Your task to perform on an android device: find photos in the google photos app Image 0: 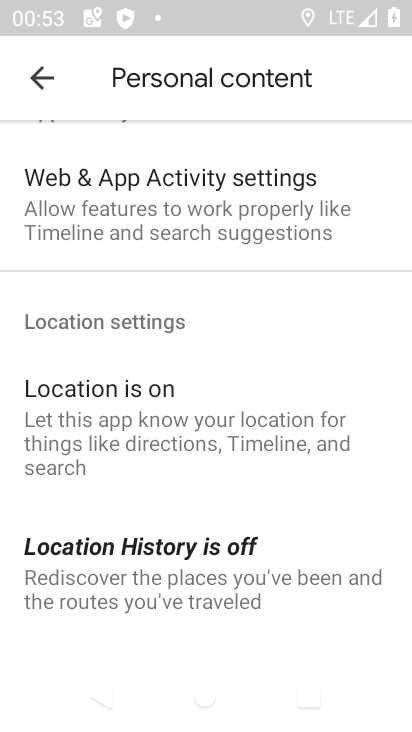
Step 0: press home button
Your task to perform on an android device: find photos in the google photos app Image 1: 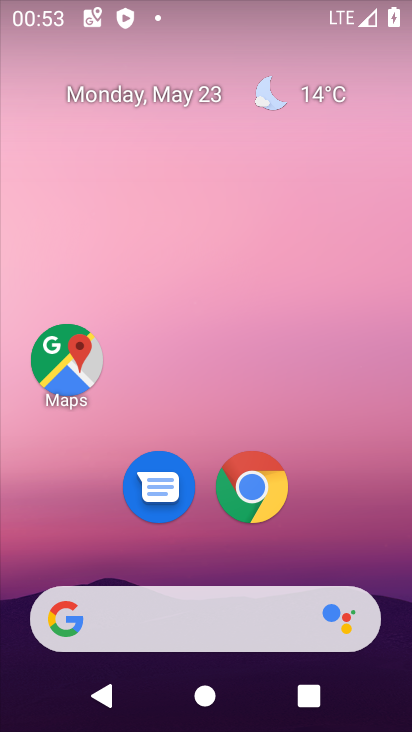
Step 1: drag from (388, 578) to (297, 15)
Your task to perform on an android device: find photos in the google photos app Image 2: 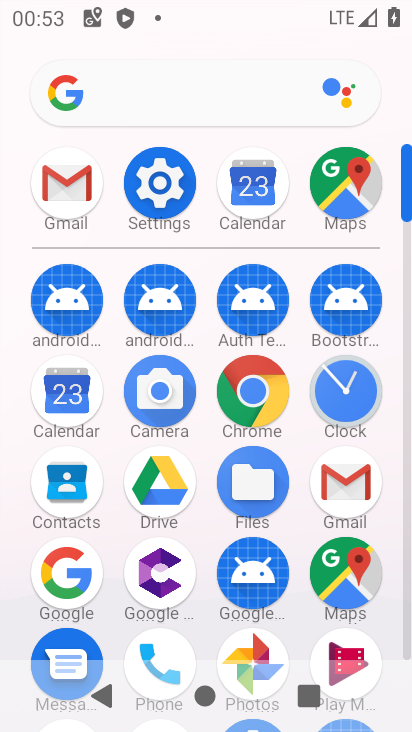
Step 2: click (405, 643)
Your task to perform on an android device: find photos in the google photos app Image 3: 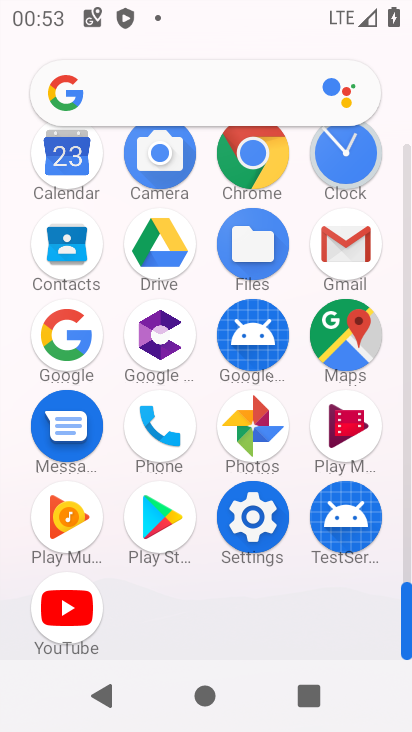
Step 3: click (251, 423)
Your task to perform on an android device: find photos in the google photos app Image 4: 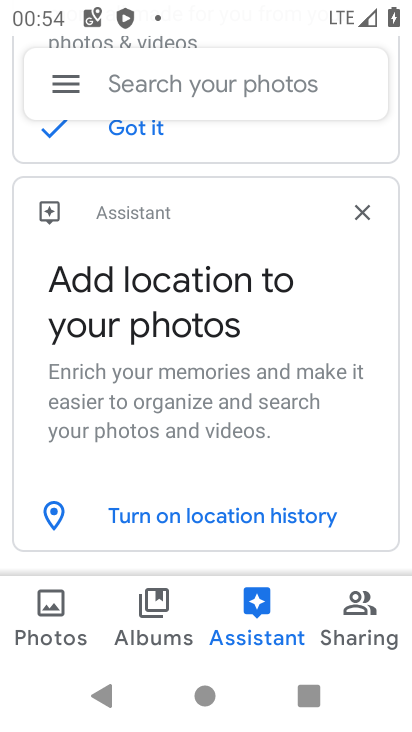
Step 4: click (47, 612)
Your task to perform on an android device: find photos in the google photos app Image 5: 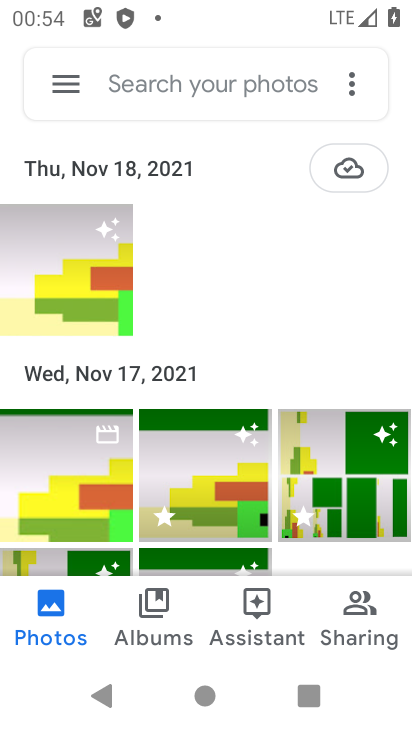
Step 5: task complete